Your task to perform on an android device: What's the weather like in Delhi? Image 0: 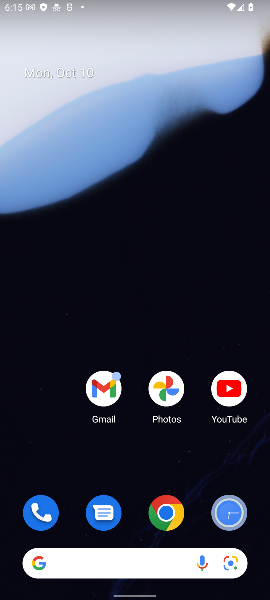
Step 0: click (125, 559)
Your task to perform on an android device: What's the weather like in Delhi? Image 1: 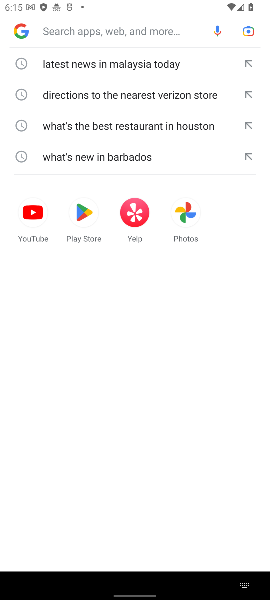
Step 1: type "the weather like in Delhi?"
Your task to perform on an android device: What's the weather like in Delhi? Image 2: 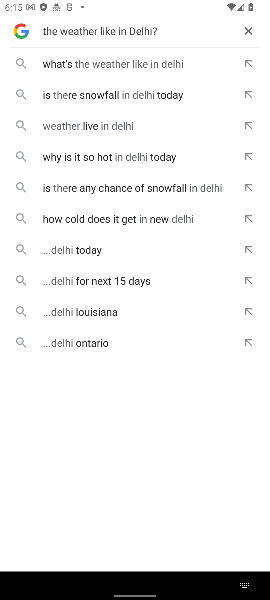
Step 2: click (171, 74)
Your task to perform on an android device: What's the weather like in Delhi? Image 3: 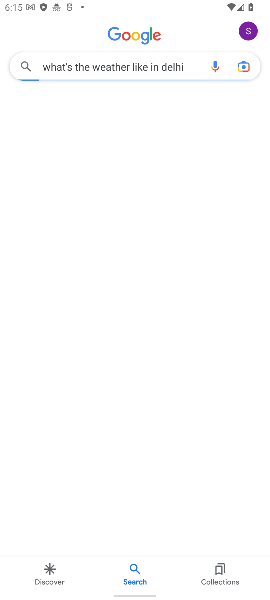
Step 3: task complete